Your task to perform on an android device: Open Wikipedia Image 0: 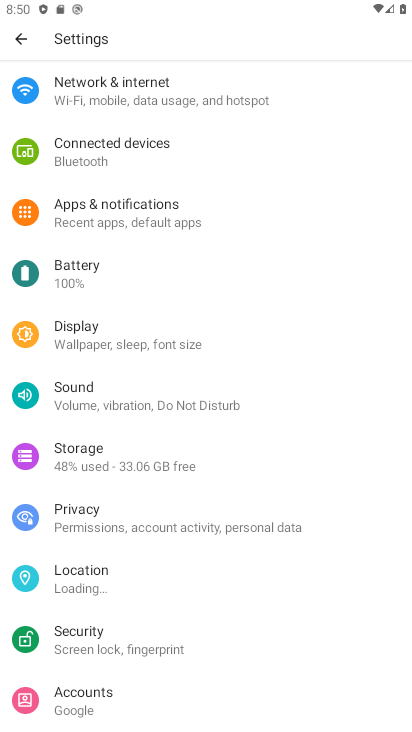
Step 0: press back button
Your task to perform on an android device: Open Wikipedia Image 1: 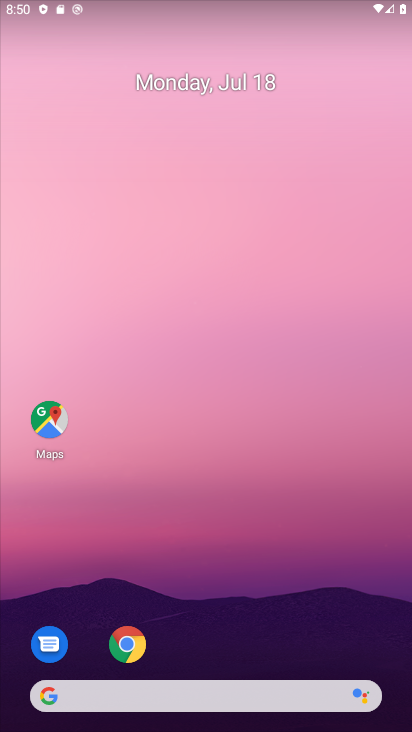
Step 1: click (136, 635)
Your task to perform on an android device: Open Wikipedia Image 2: 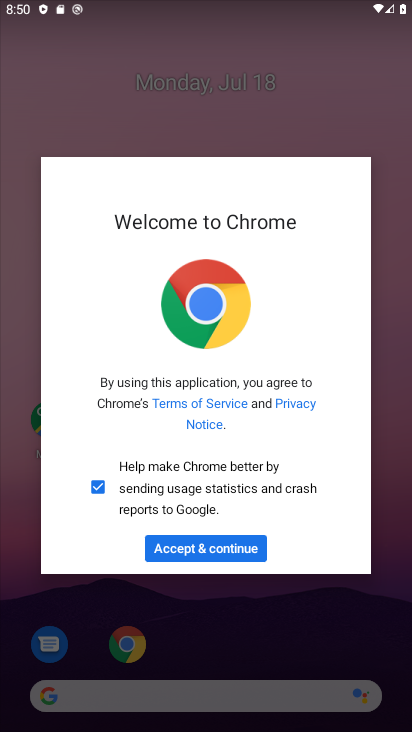
Step 2: click (207, 551)
Your task to perform on an android device: Open Wikipedia Image 3: 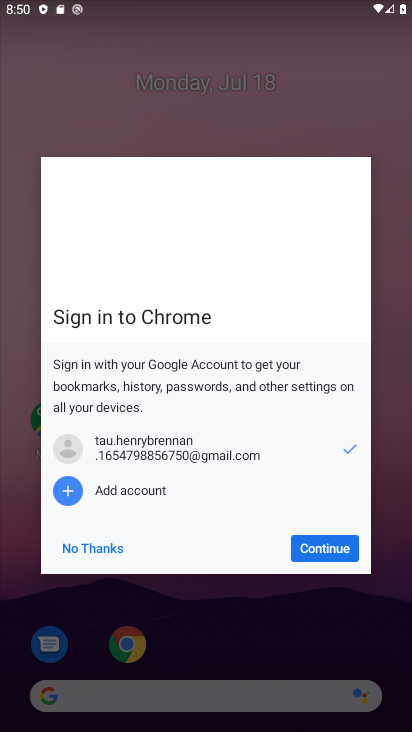
Step 3: click (292, 543)
Your task to perform on an android device: Open Wikipedia Image 4: 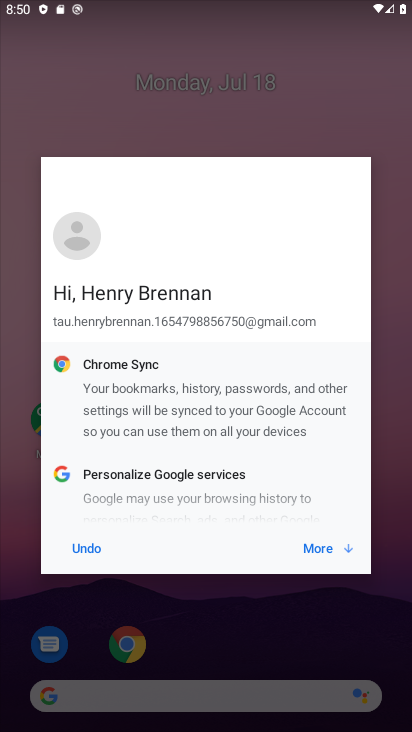
Step 4: click (326, 549)
Your task to perform on an android device: Open Wikipedia Image 5: 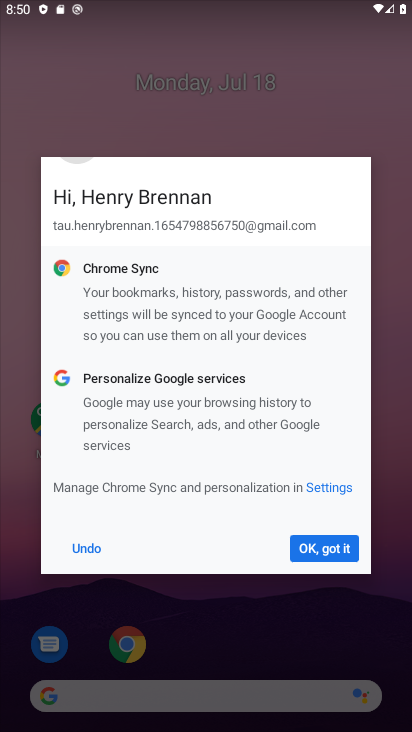
Step 5: click (329, 546)
Your task to perform on an android device: Open Wikipedia Image 6: 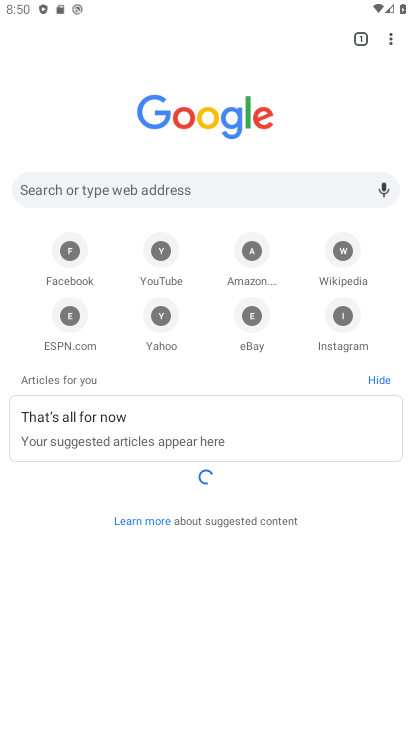
Step 6: click (339, 259)
Your task to perform on an android device: Open Wikipedia Image 7: 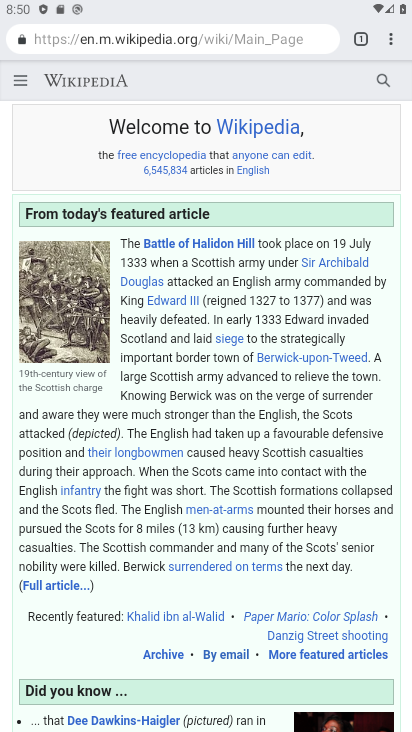
Step 7: task complete